Your task to perform on an android device: Check the news Image 0: 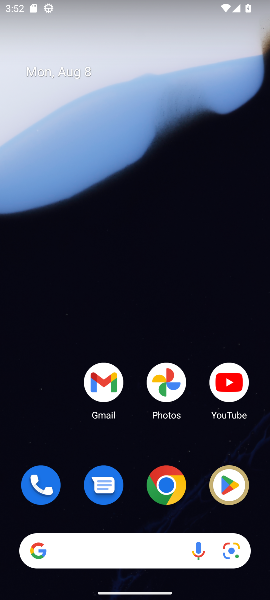
Step 0: drag from (131, 581) to (109, 106)
Your task to perform on an android device: Check the news Image 1: 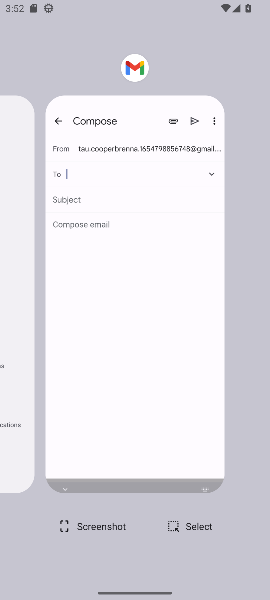
Step 1: press back button
Your task to perform on an android device: Check the news Image 2: 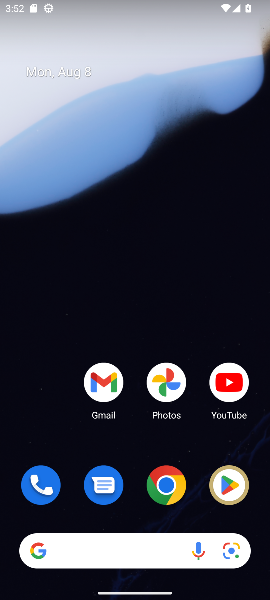
Step 2: drag from (212, 559) to (125, 57)
Your task to perform on an android device: Check the news Image 3: 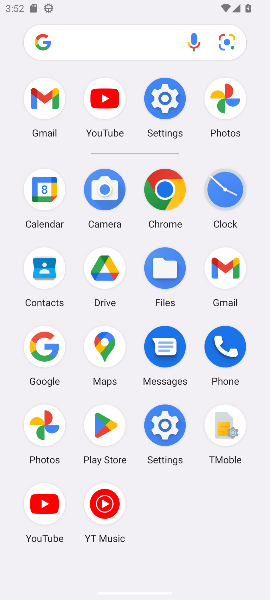
Step 3: drag from (170, 342) to (133, 164)
Your task to perform on an android device: Check the news Image 4: 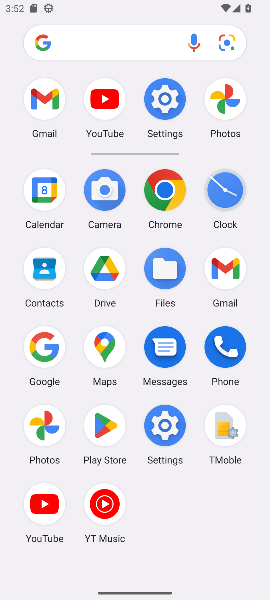
Step 4: click (166, 192)
Your task to perform on an android device: Check the news Image 5: 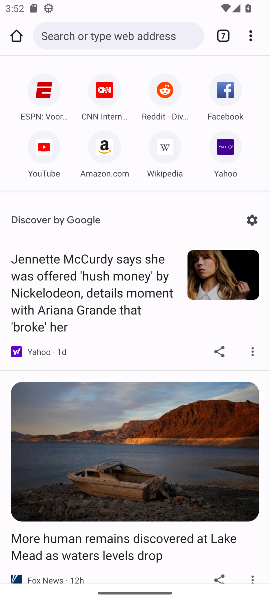
Step 5: task complete